Your task to perform on an android device: What's the weather? Image 0: 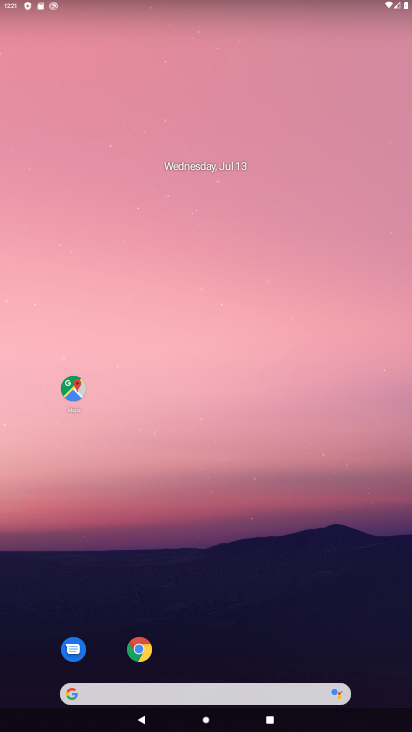
Step 0: drag from (187, 630) to (244, 214)
Your task to perform on an android device: What's the weather? Image 1: 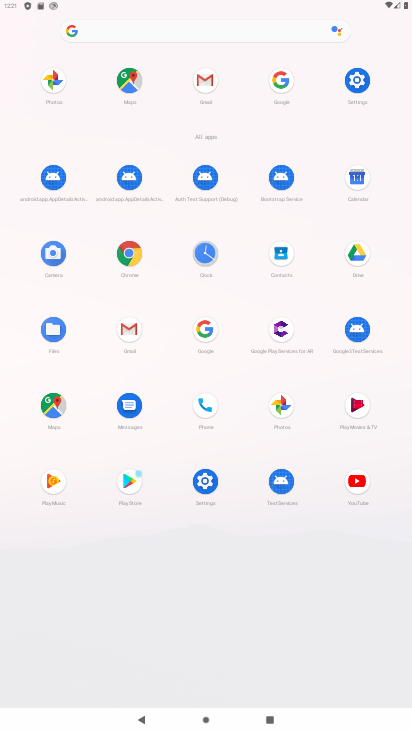
Step 1: click (214, 340)
Your task to perform on an android device: What's the weather? Image 2: 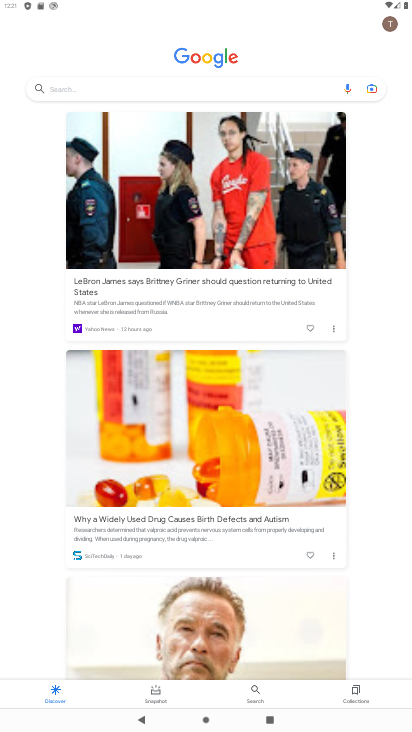
Step 2: click (218, 100)
Your task to perform on an android device: What's the weather? Image 3: 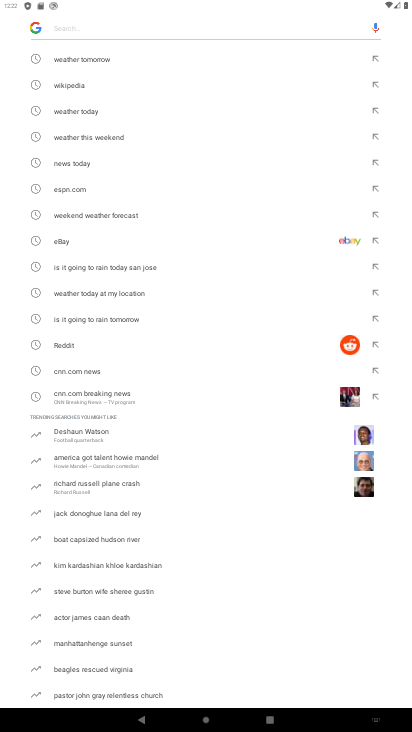
Step 3: type "weather?"
Your task to perform on an android device: What's the weather? Image 4: 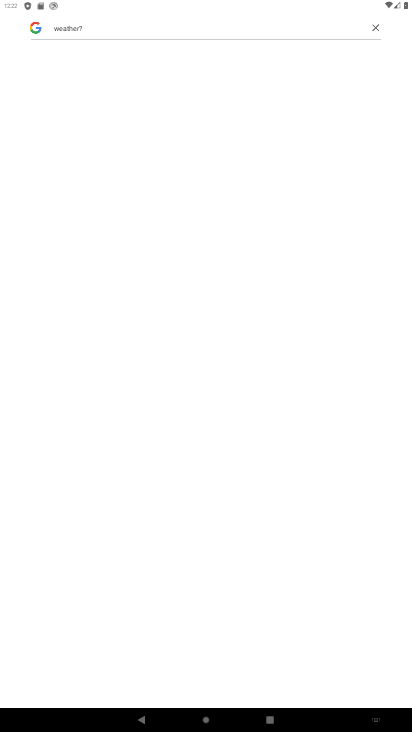
Step 4: press enter
Your task to perform on an android device: What's the weather? Image 5: 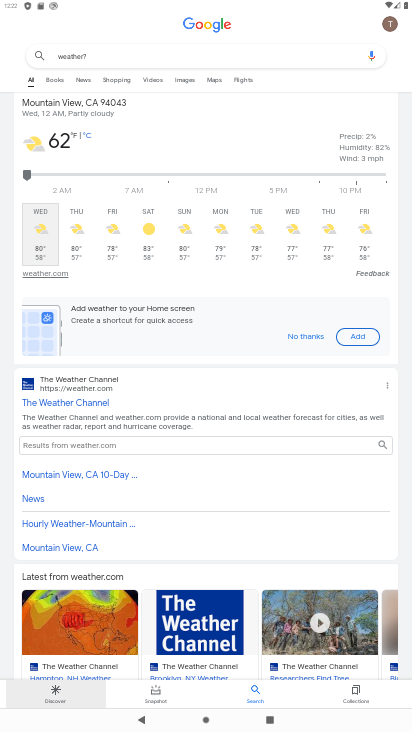
Step 5: task complete